Your task to perform on an android device: turn smart compose on in the gmail app Image 0: 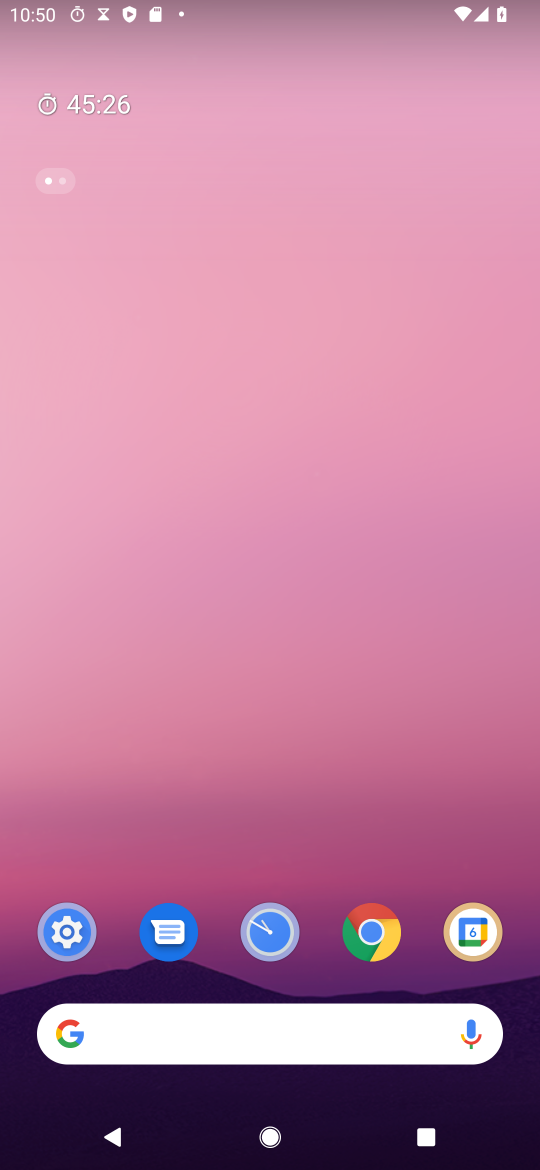
Step 0: drag from (409, 837) to (259, 123)
Your task to perform on an android device: turn smart compose on in the gmail app Image 1: 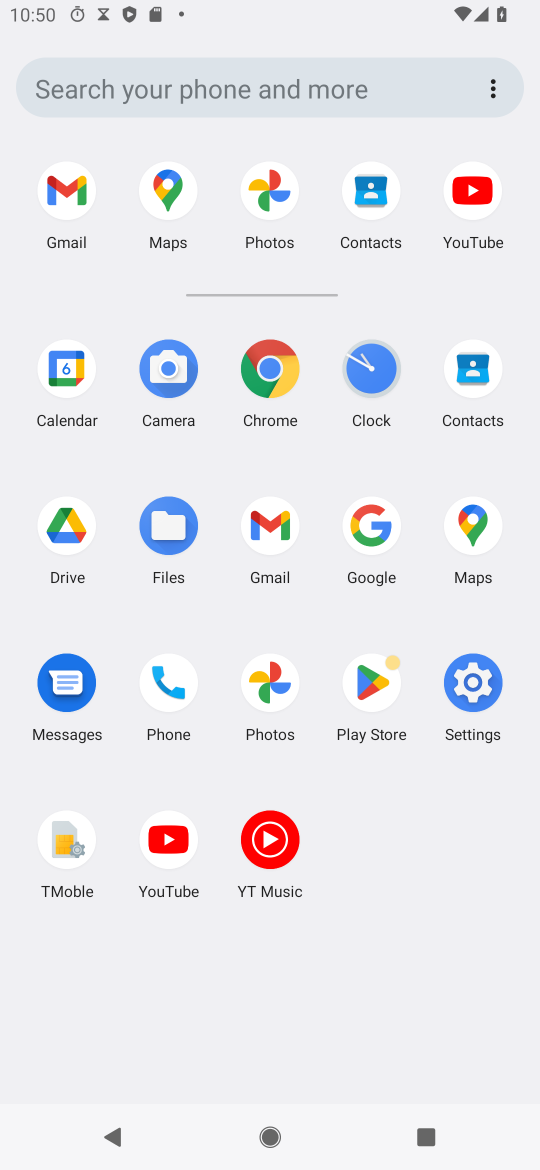
Step 1: click (83, 194)
Your task to perform on an android device: turn smart compose on in the gmail app Image 2: 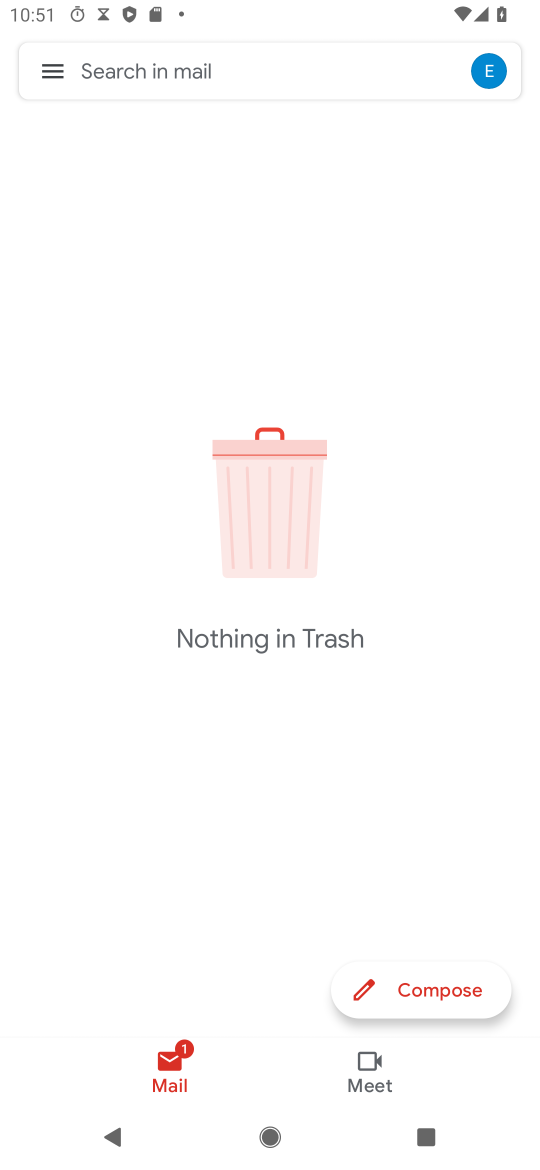
Step 2: click (56, 80)
Your task to perform on an android device: turn smart compose on in the gmail app Image 3: 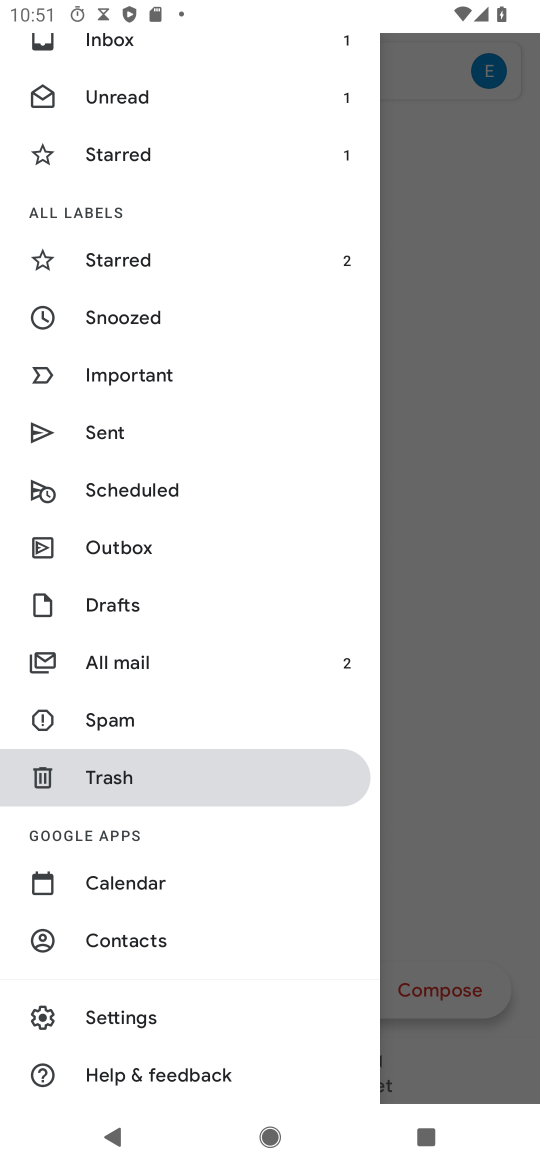
Step 3: click (175, 1010)
Your task to perform on an android device: turn smart compose on in the gmail app Image 4: 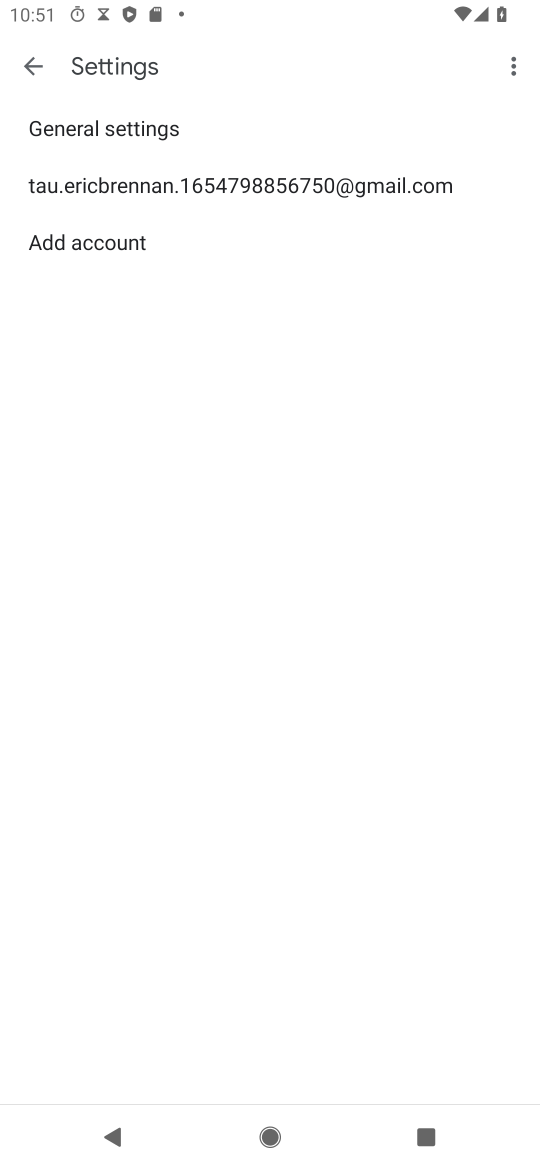
Step 4: click (289, 203)
Your task to perform on an android device: turn smart compose on in the gmail app Image 5: 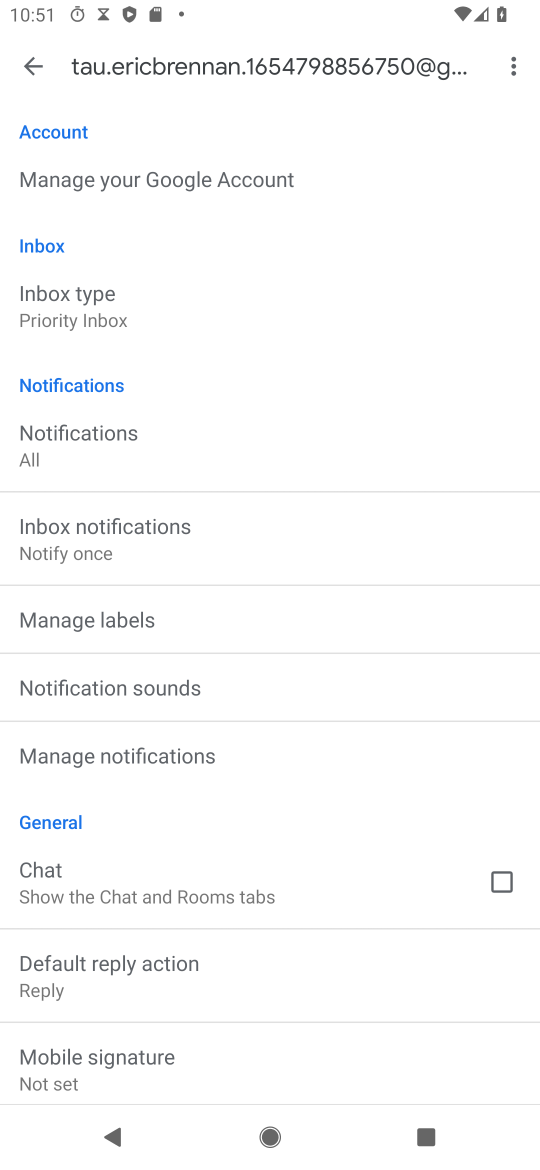
Step 5: task complete